Your task to perform on an android device: turn off javascript in the chrome app Image 0: 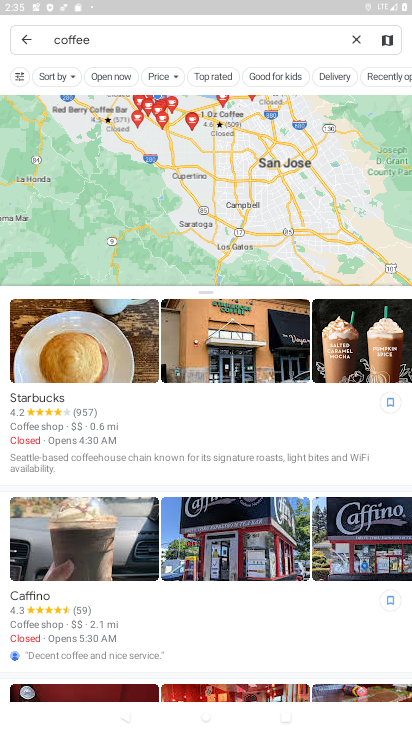
Step 0: drag from (235, 654) to (225, 202)
Your task to perform on an android device: turn off javascript in the chrome app Image 1: 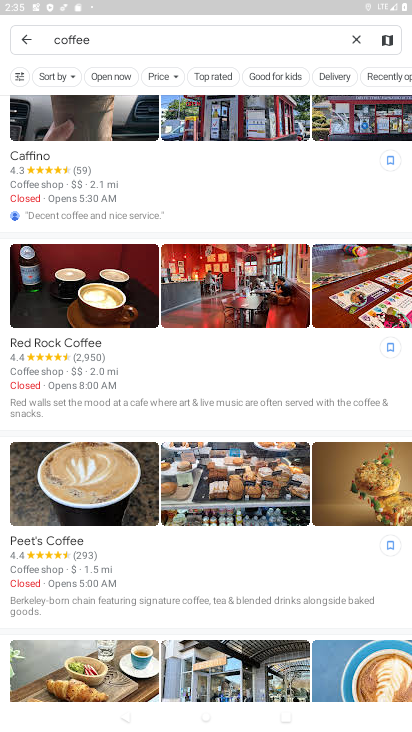
Step 1: drag from (246, 189) to (411, 533)
Your task to perform on an android device: turn off javascript in the chrome app Image 2: 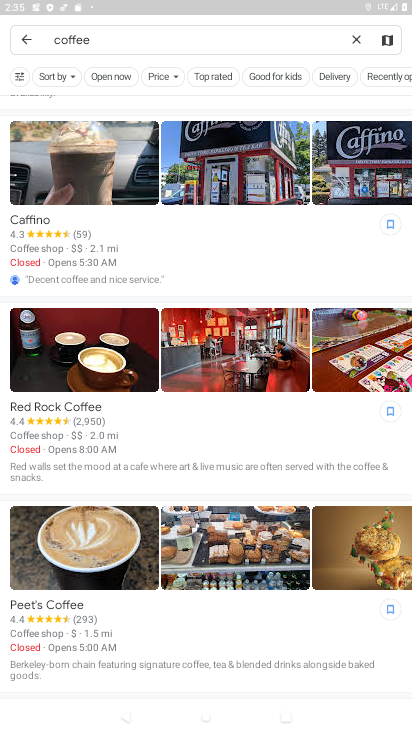
Step 2: press home button
Your task to perform on an android device: turn off javascript in the chrome app Image 3: 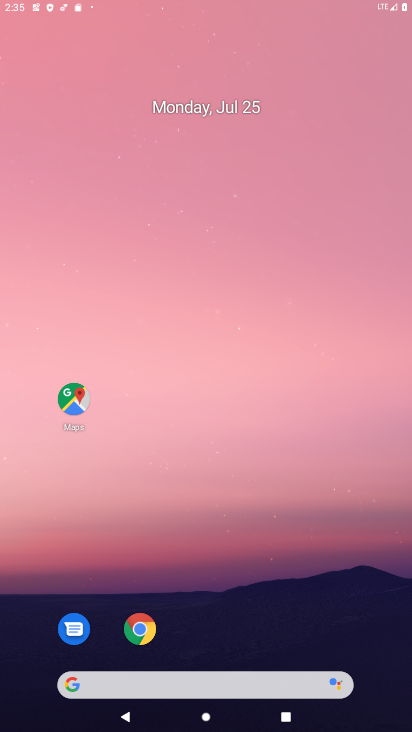
Step 3: drag from (199, 471) to (268, 0)
Your task to perform on an android device: turn off javascript in the chrome app Image 4: 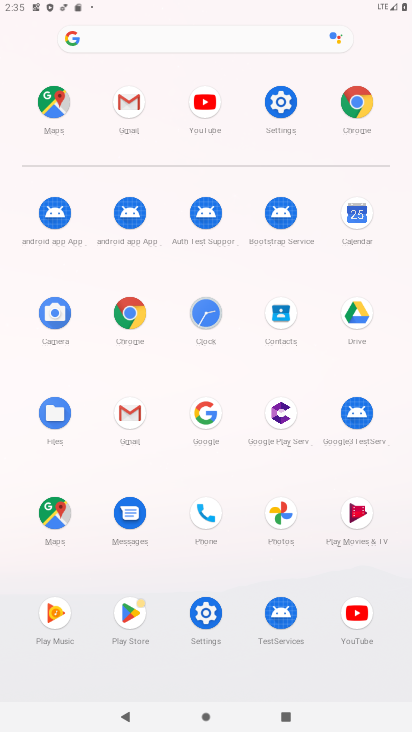
Step 4: click (134, 315)
Your task to perform on an android device: turn off javascript in the chrome app Image 5: 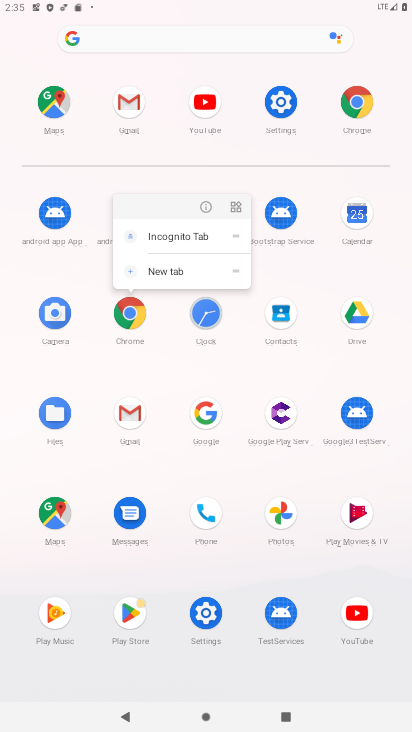
Step 5: click (206, 201)
Your task to perform on an android device: turn off javascript in the chrome app Image 6: 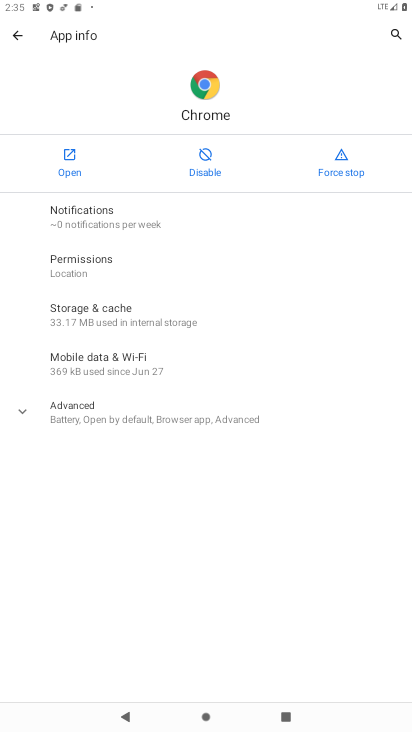
Step 6: click (53, 164)
Your task to perform on an android device: turn off javascript in the chrome app Image 7: 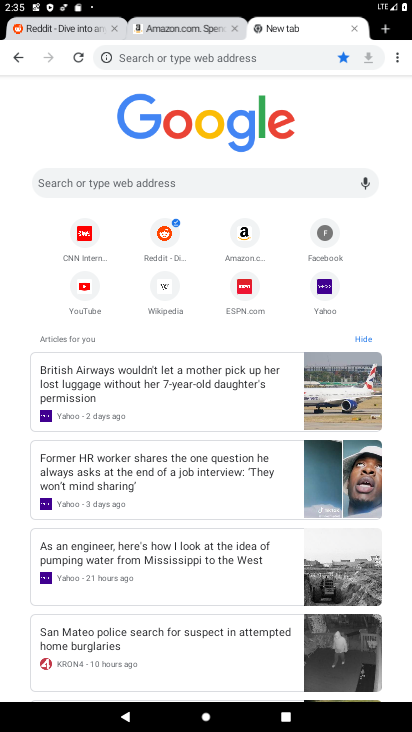
Step 7: drag from (395, 59) to (299, 300)
Your task to perform on an android device: turn off javascript in the chrome app Image 8: 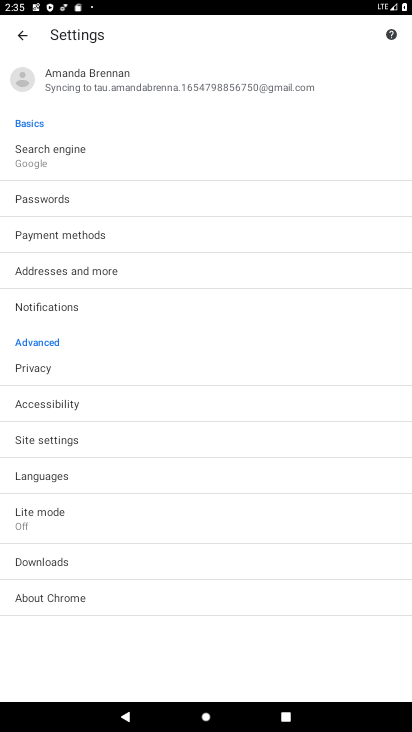
Step 8: click (77, 441)
Your task to perform on an android device: turn off javascript in the chrome app Image 9: 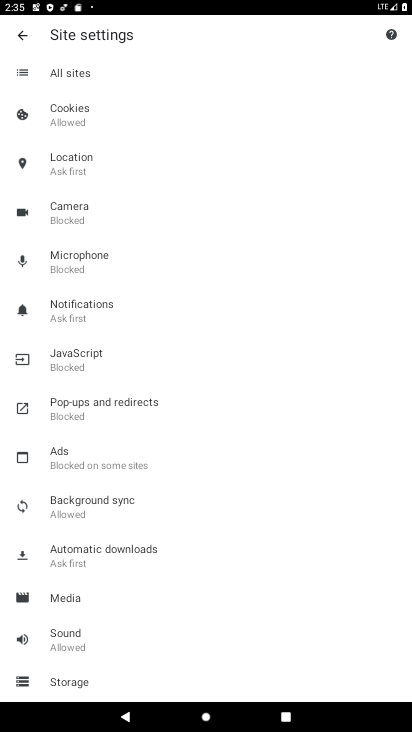
Step 9: click (116, 360)
Your task to perform on an android device: turn off javascript in the chrome app Image 10: 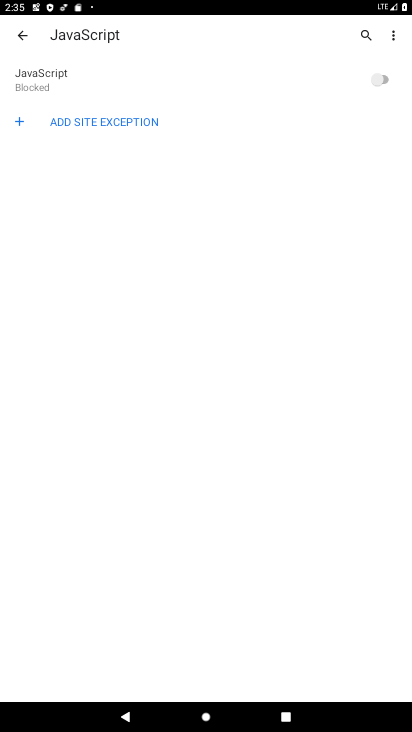
Step 10: task complete